Your task to perform on an android device: change the clock display to show seconds Image 0: 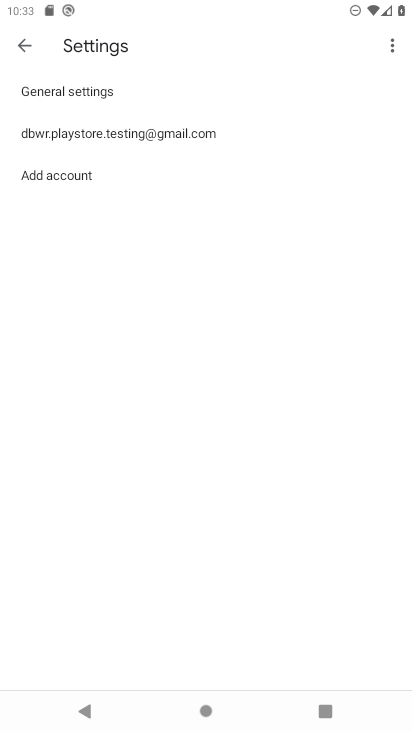
Step 0: press home button
Your task to perform on an android device: change the clock display to show seconds Image 1: 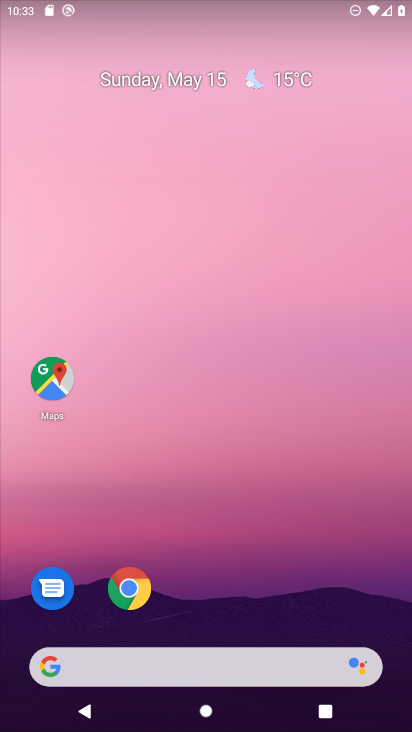
Step 1: drag from (241, 605) to (248, 216)
Your task to perform on an android device: change the clock display to show seconds Image 2: 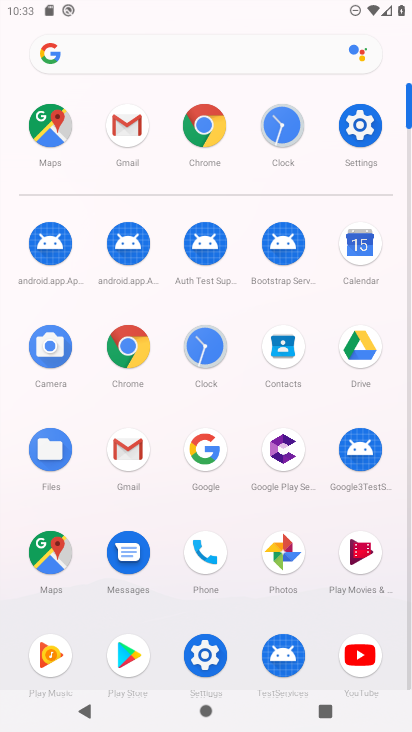
Step 2: click (208, 364)
Your task to perform on an android device: change the clock display to show seconds Image 3: 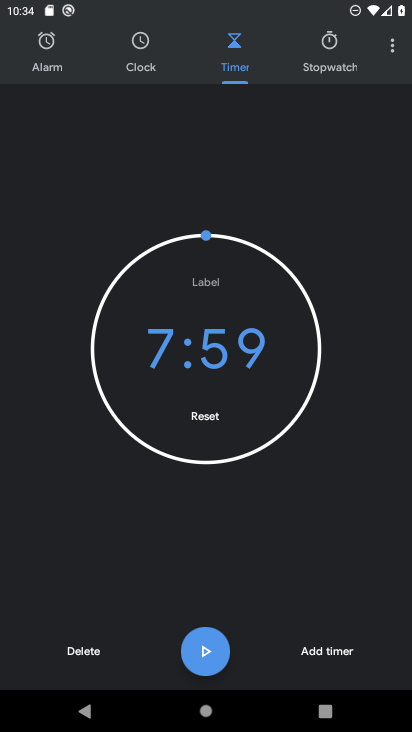
Step 3: click (392, 57)
Your task to perform on an android device: change the clock display to show seconds Image 4: 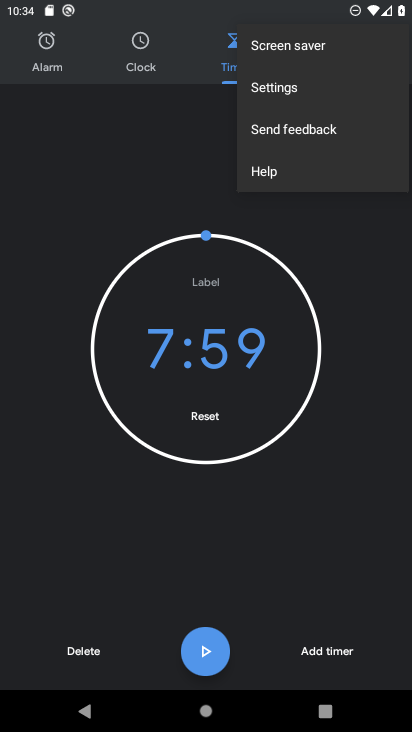
Step 4: click (280, 95)
Your task to perform on an android device: change the clock display to show seconds Image 5: 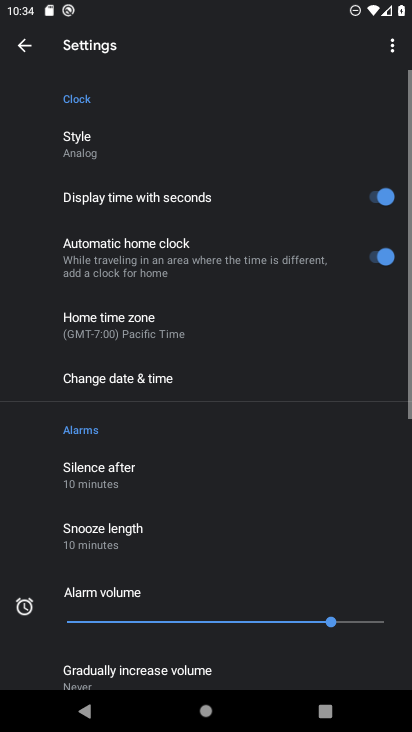
Step 5: click (108, 148)
Your task to perform on an android device: change the clock display to show seconds Image 6: 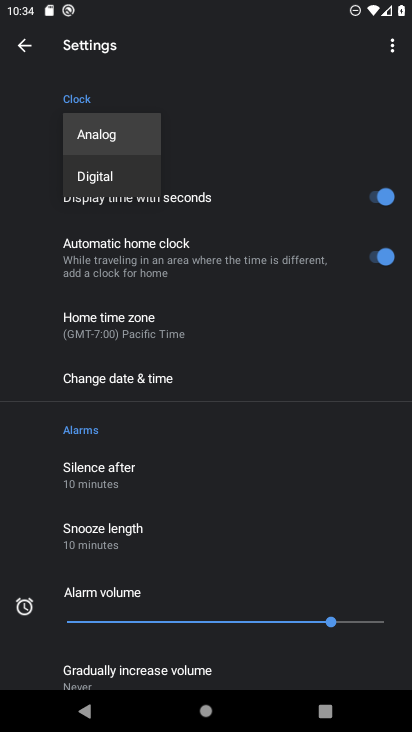
Step 6: click (102, 179)
Your task to perform on an android device: change the clock display to show seconds Image 7: 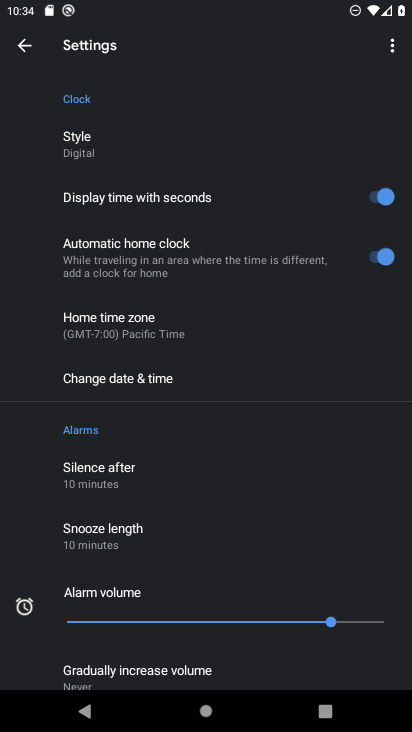
Step 7: task complete